Your task to perform on an android device: check android version Image 0: 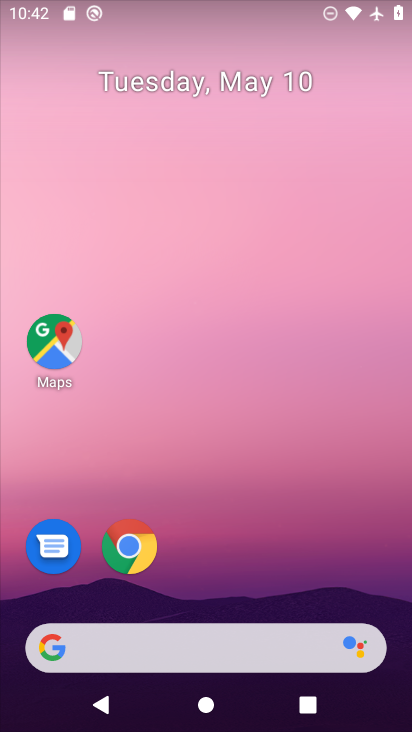
Step 0: drag from (263, 436) to (255, 73)
Your task to perform on an android device: check android version Image 1: 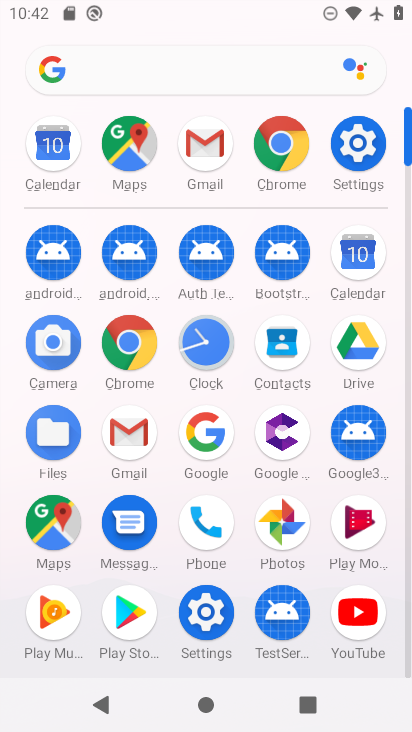
Step 1: click (374, 141)
Your task to perform on an android device: check android version Image 2: 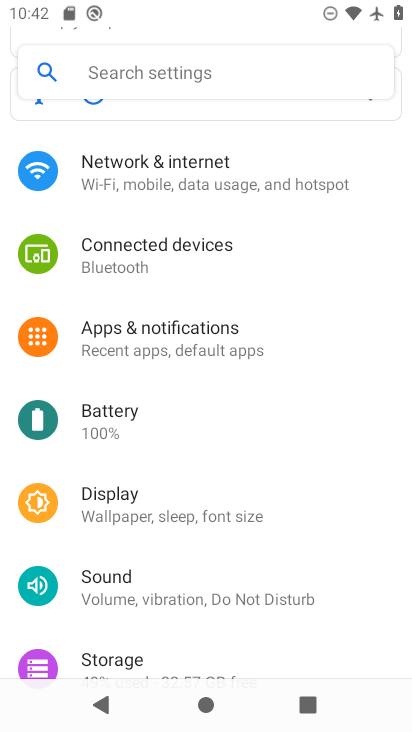
Step 2: drag from (211, 557) to (251, 190)
Your task to perform on an android device: check android version Image 3: 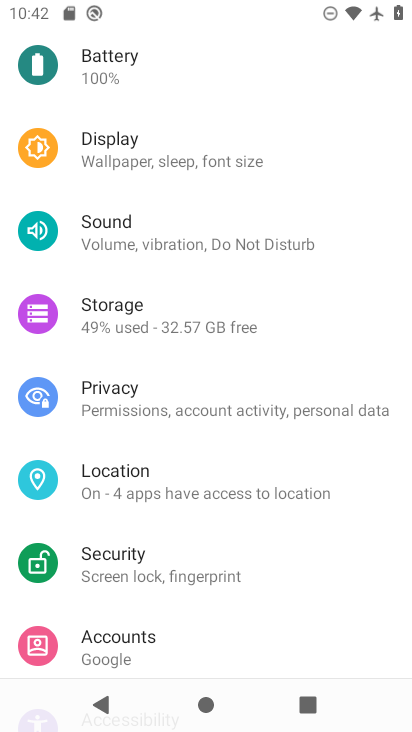
Step 3: drag from (169, 567) to (204, 440)
Your task to perform on an android device: check android version Image 4: 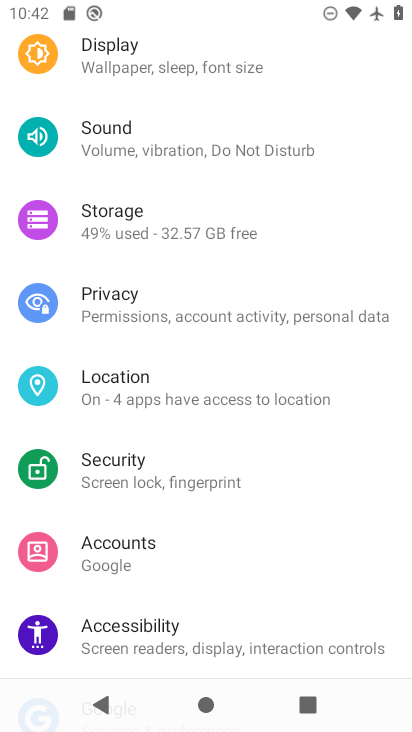
Step 4: drag from (125, 595) to (176, 179)
Your task to perform on an android device: check android version Image 5: 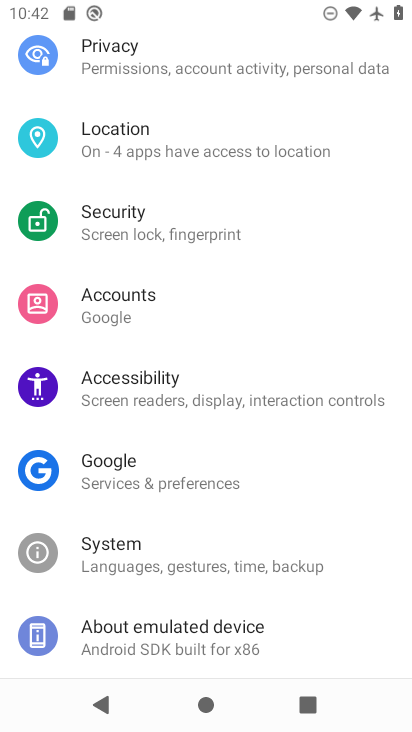
Step 5: click (142, 627)
Your task to perform on an android device: check android version Image 6: 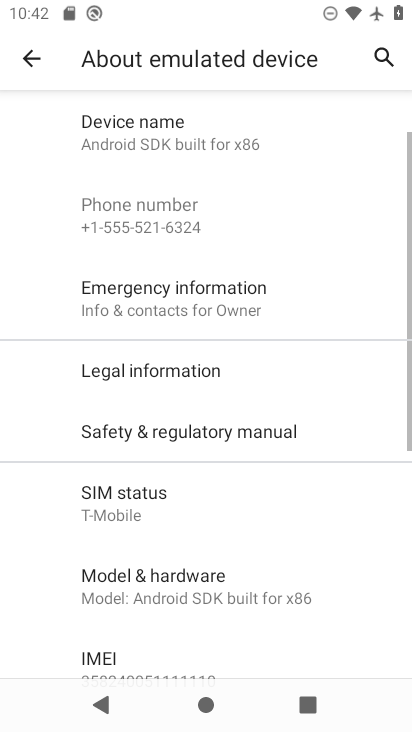
Step 6: drag from (166, 634) to (283, 255)
Your task to perform on an android device: check android version Image 7: 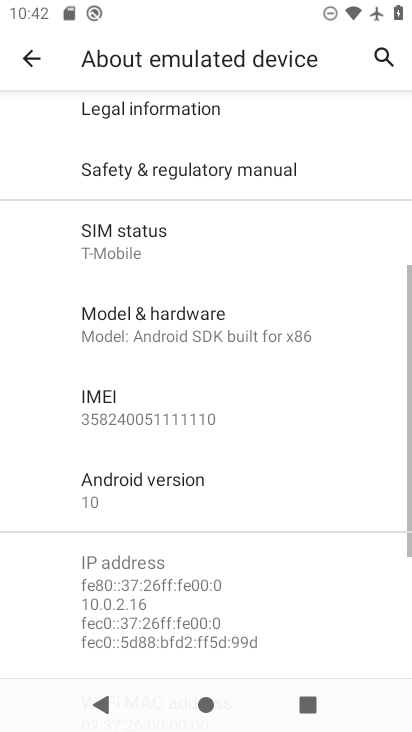
Step 7: drag from (173, 566) to (233, 395)
Your task to perform on an android device: check android version Image 8: 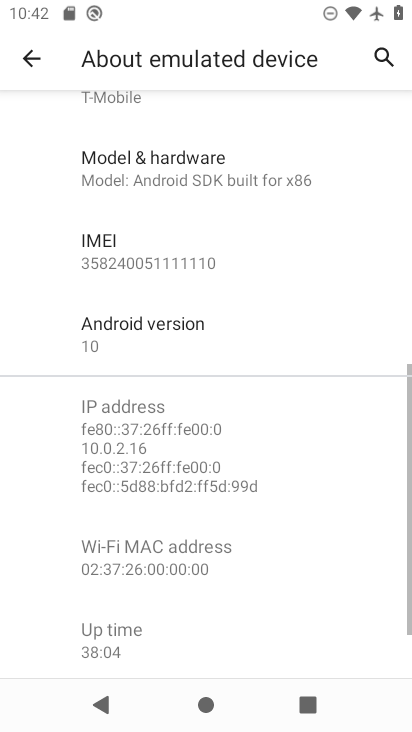
Step 8: click (183, 337)
Your task to perform on an android device: check android version Image 9: 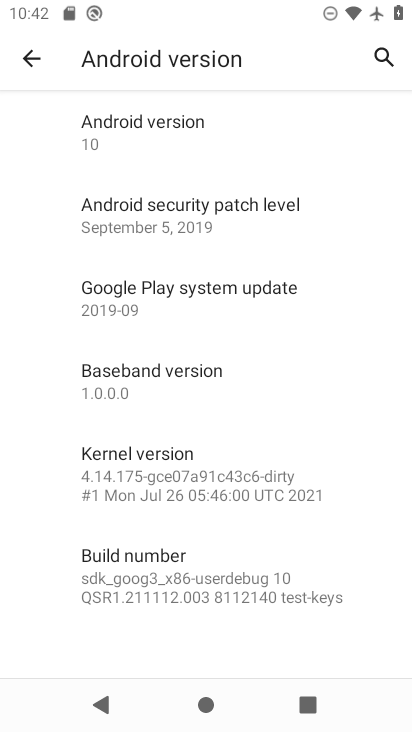
Step 9: task complete